Your task to perform on an android device: Set the phone to "Do not disturb". Image 0: 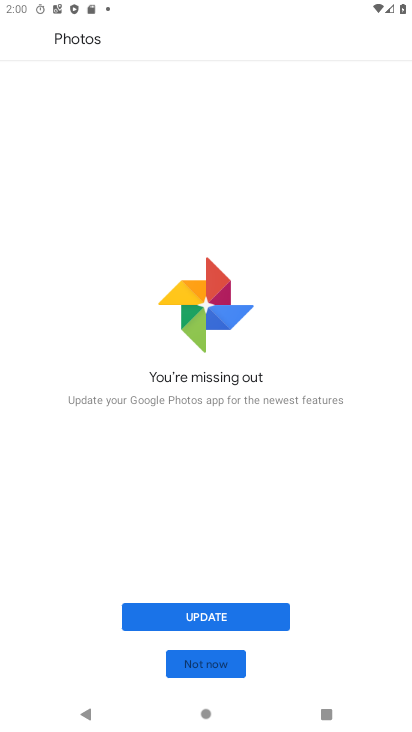
Step 0: press home button
Your task to perform on an android device: Set the phone to "Do not disturb". Image 1: 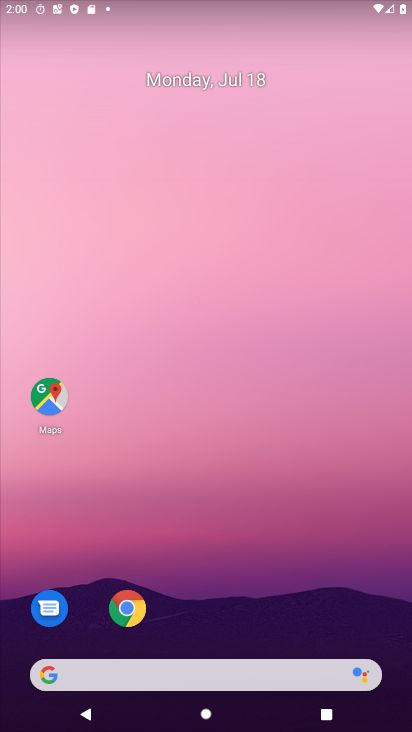
Step 1: drag from (238, 702) to (239, 137)
Your task to perform on an android device: Set the phone to "Do not disturb". Image 2: 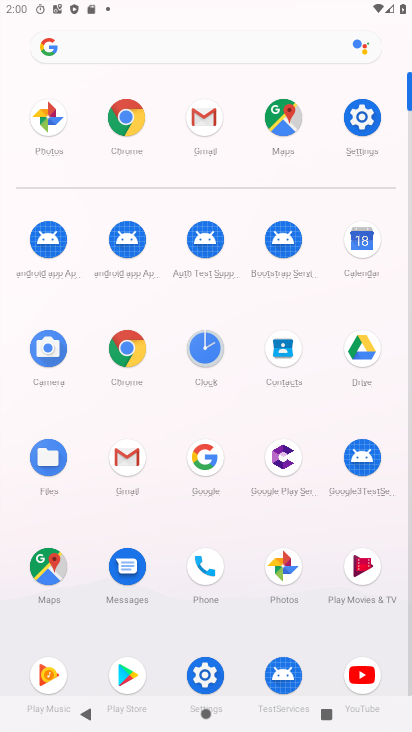
Step 2: click (365, 117)
Your task to perform on an android device: Set the phone to "Do not disturb". Image 3: 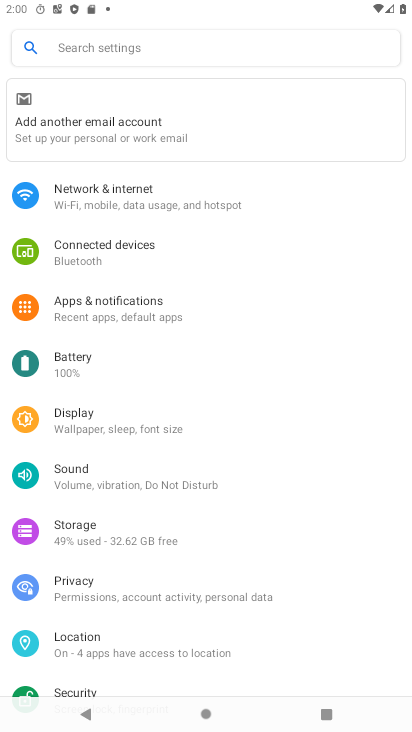
Step 3: click (110, 479)
Your task to perform on an android device: Set the phone to "Do not disturb". Image 4: 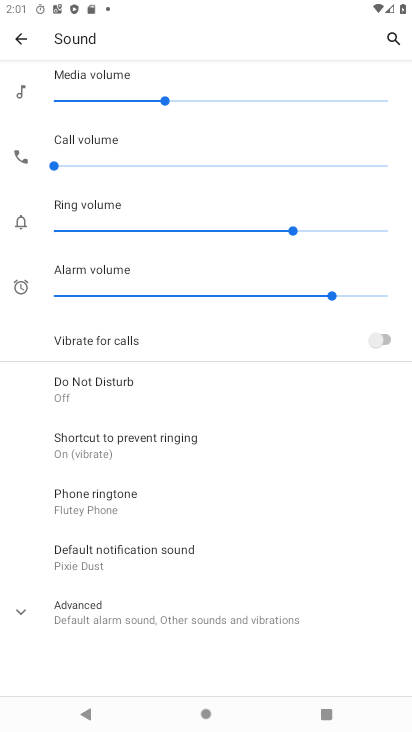
Step 4: click (88, 386)
Your task to perform on an android device: Set the phone to "Do not disturb". Image 5: 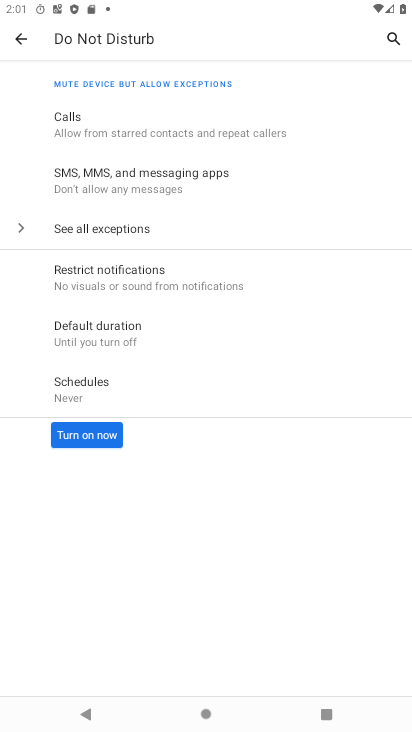
Step 5: click (62, 438)
Your task to perform on an android device: Set the phone to "Do not disturb". Image 6: 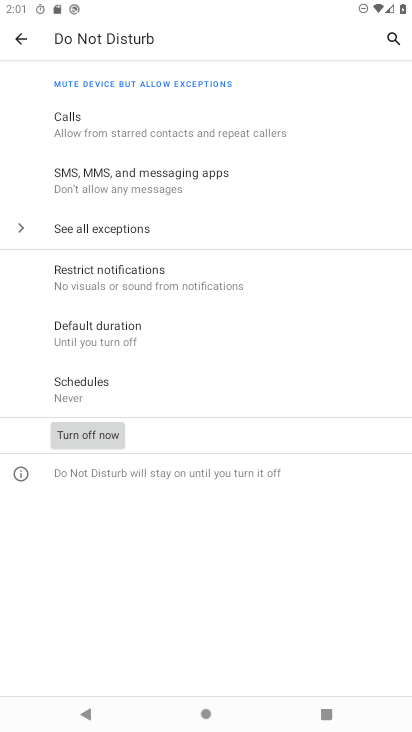
Step 6: task complete